Your task to perform on an android device: Go to Google maps Image 0: 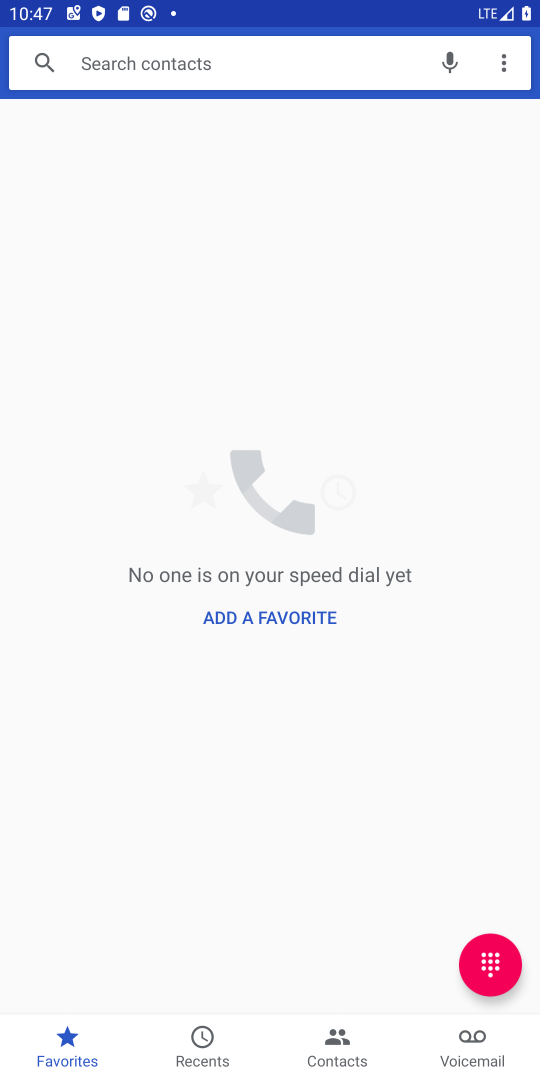
Step 0: press home button
Your task to perform on an android device: Go to Google maps Image 1: 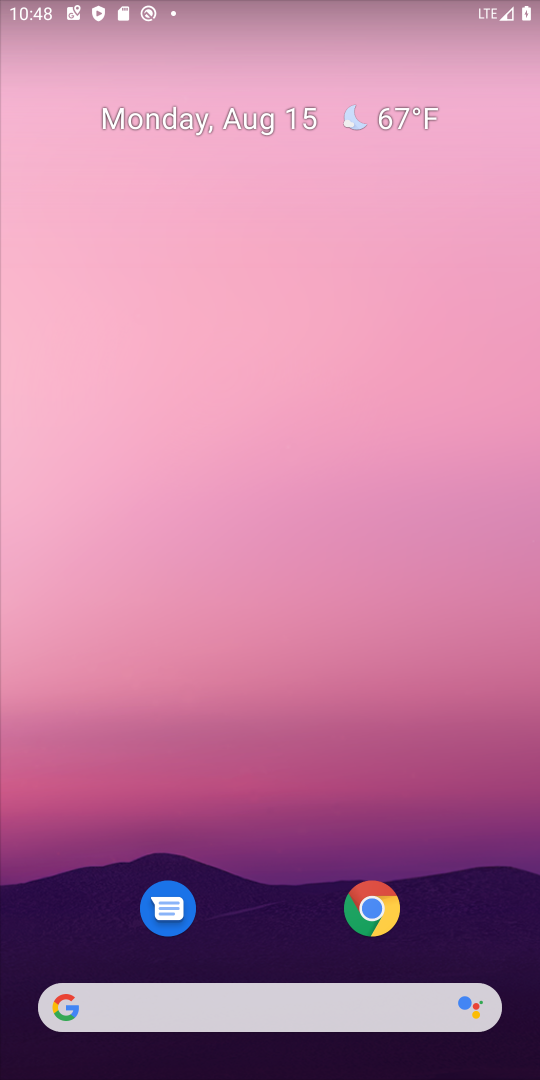
Step 1: drag from (286, 937) to (272, 24)
Your task to perform on an android device: Go to Google maps Image 2: 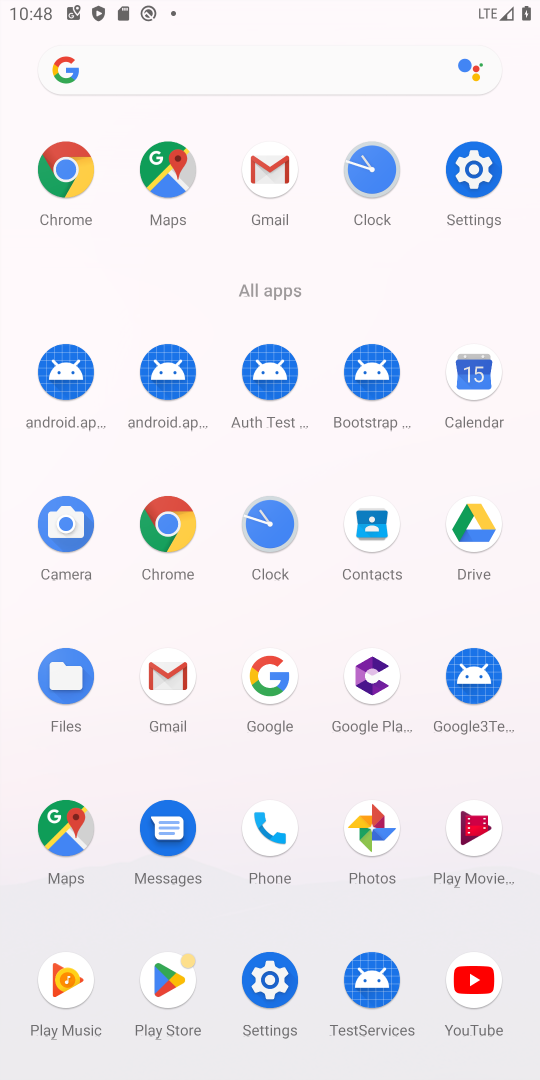
Step 2: click (153, 170)
Your task to perform on an android device: Go to Google maps Image 3: 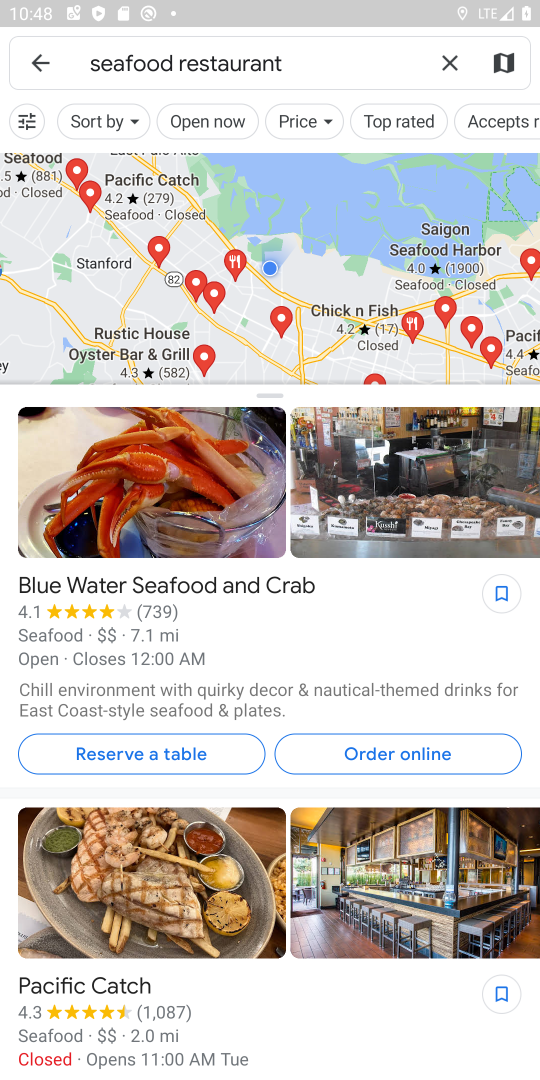
Step 3: task complete